Your task to perform on an android device: turn notification dots off Image 0: 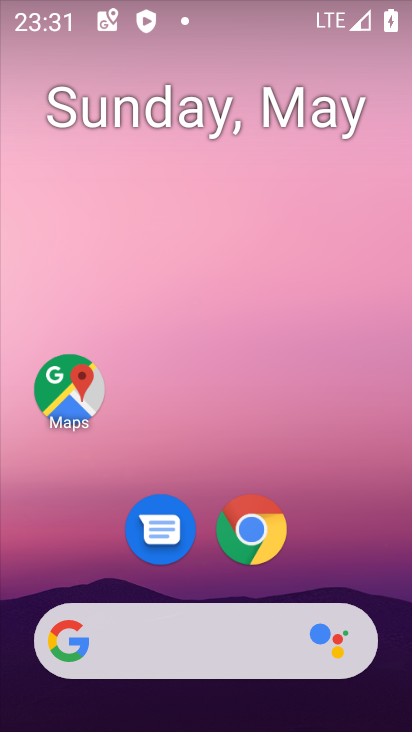
Step 0: drag from (382, 599) to (380, 158)
Your task to perform on an android device: turn notification dots off Image 1: 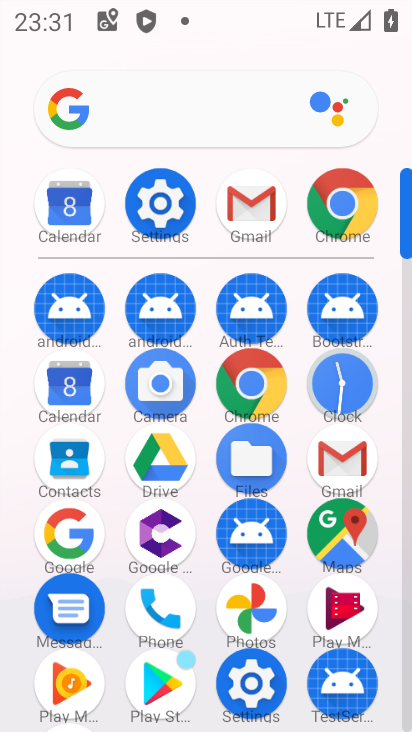
Step 1: click (255, 683)
Your task to perform on an android device: turn notification dots off Image 2: 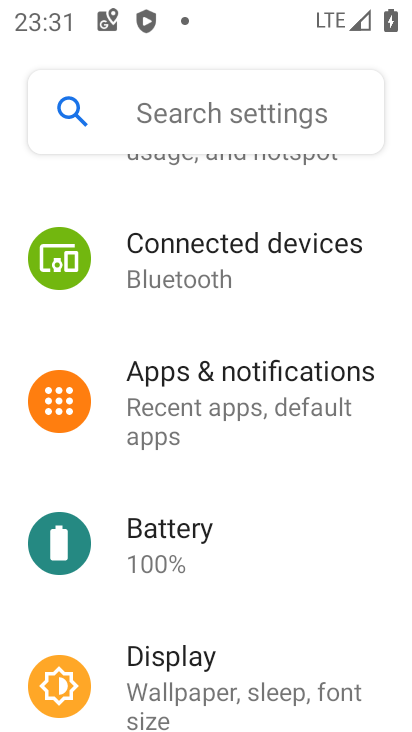
Step 2: click (259, 420)
Your task to perform on an android device: turn notification dots off Image 3: 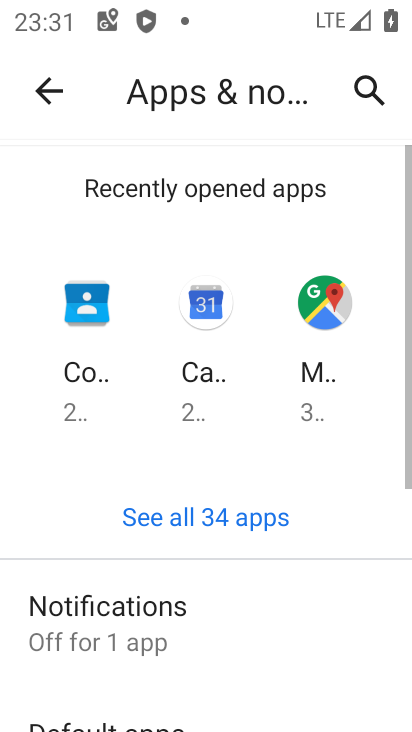
Step 3: drag from (226, 626) to (282, 291)
Your task to perform on an android device: turn notification dots off Image 4: 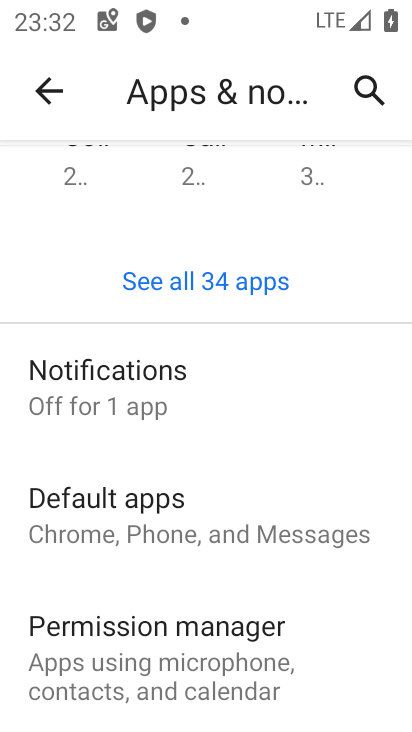
Step 4: click (228, 387)
Your task to perform on an android device: turn notification dots off Image 5: 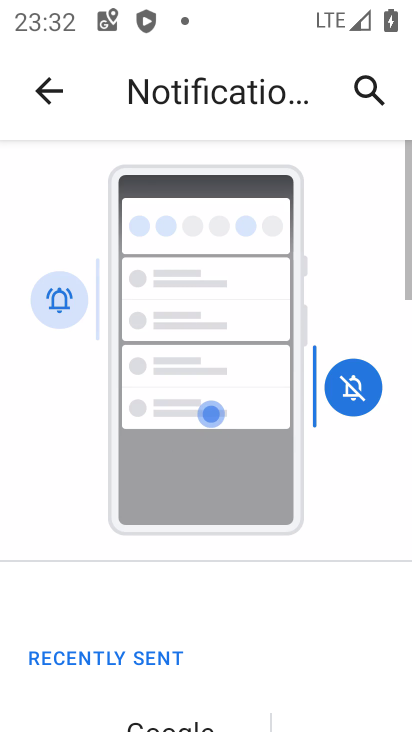
Step 5: drag from (250, 668) to (321, 203)
Your task to perform on an android device: turn notification dots off Image 6: 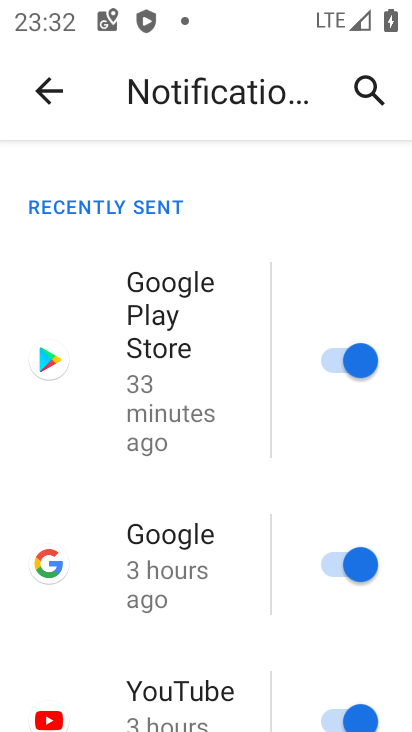
Step 6: drag from (219, 628) to (264, 269)
Your task to perform on an android device: turn notification dots off Image 7: 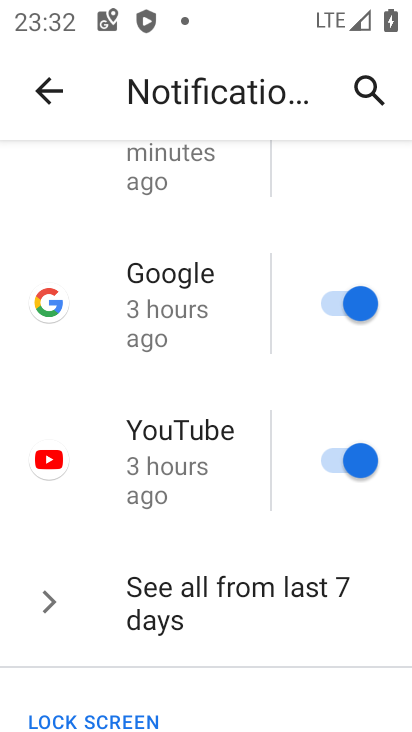
Step 7: drag from (216, 631) to (261, 216)
Your task to perform on an android device: turn notification dots off Image 8: 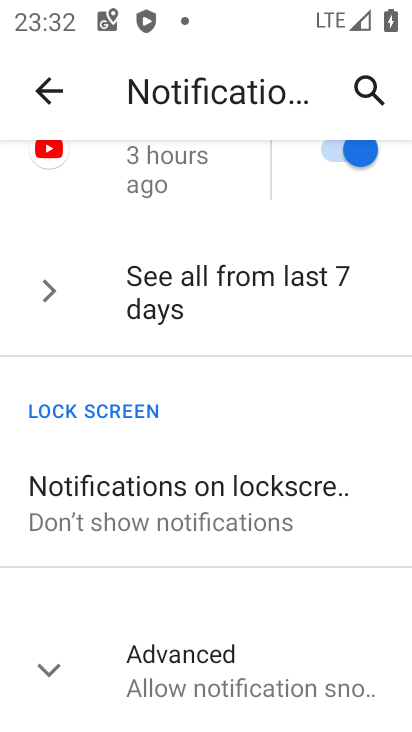
Step 8: click (257, 674)
Your task to perform on an android device: turn notification dots off Image 9: 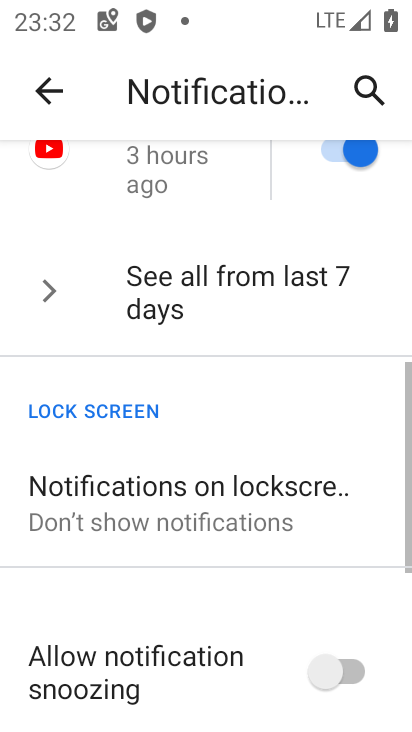
Step 9: drag from (250, 689) to (289, 396)
Your task to perform on an android device: turn notification dots off Image 10: 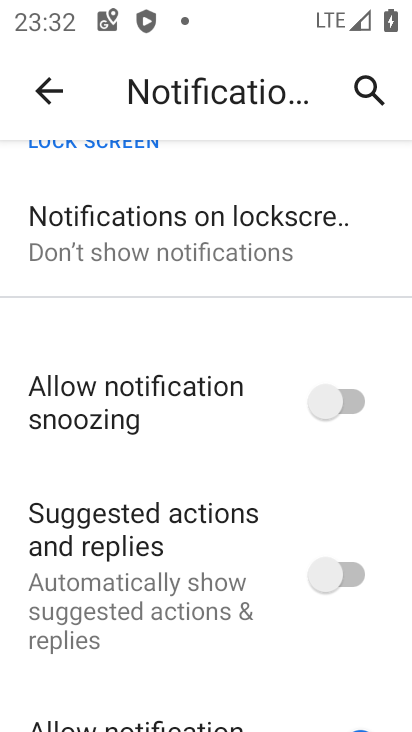
Step 10: drag from (197, 662) to (194, 439)
Your task to perform on an android device: turn notification dots off Image 11: 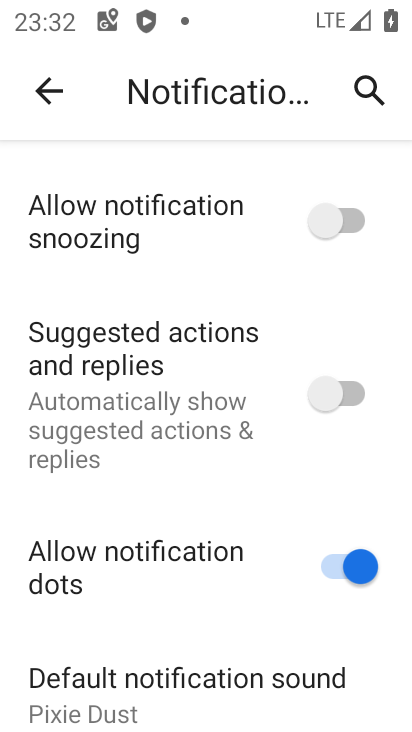
Step 11: click (348, 561)
Your task to perform on an android device: turn notification dots off Image 12: 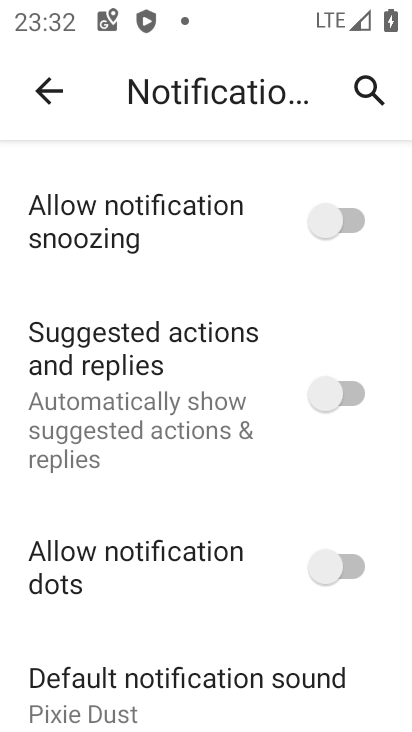
Step 12: task complete